Your task to perform on an android device: Set the phone to "Do not disturb". Image 0: 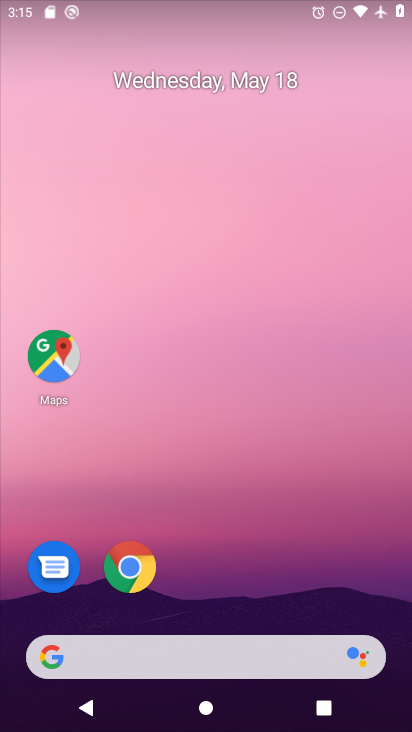
Step 0: drag from (166, 0) to (177, 414)
Your task to perform on an android device: Set the phone to "Do not disturb". Image 1: 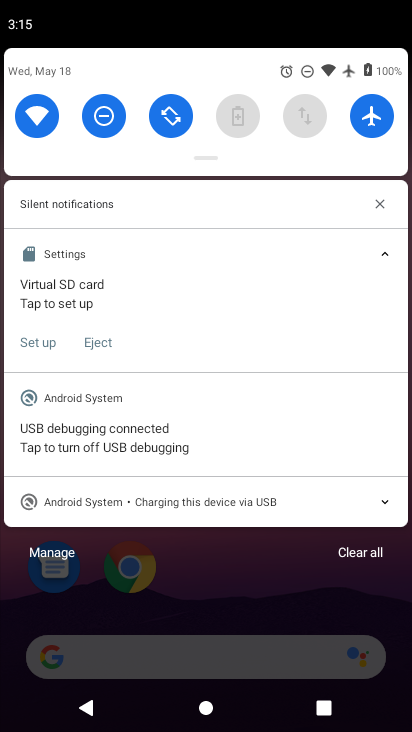
Step 1: click (100, 103)
Your task to perform on an android device: Set the phone to "Do not disturb". Image 2: 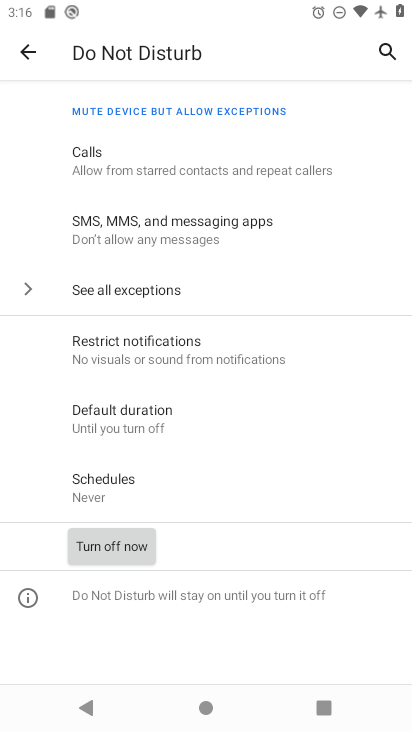
Step 2: task complete